Your task to perform on an android device: star an email in the gmail app Image 0: 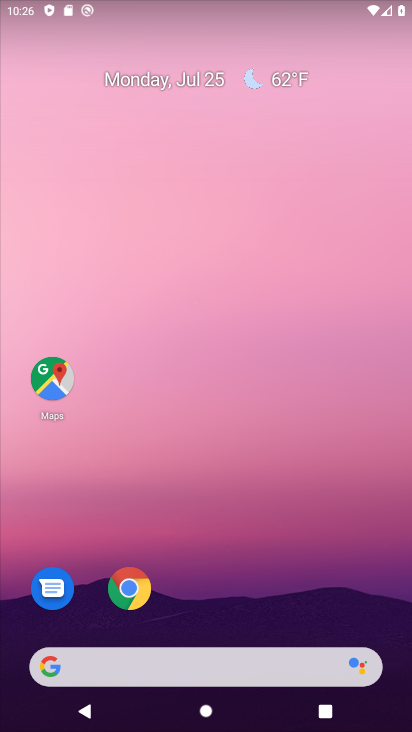
Step 0: drag from (75, 468) to (316, 5)
Your task to perform on an android device: star an email in the gmail app Image 1: 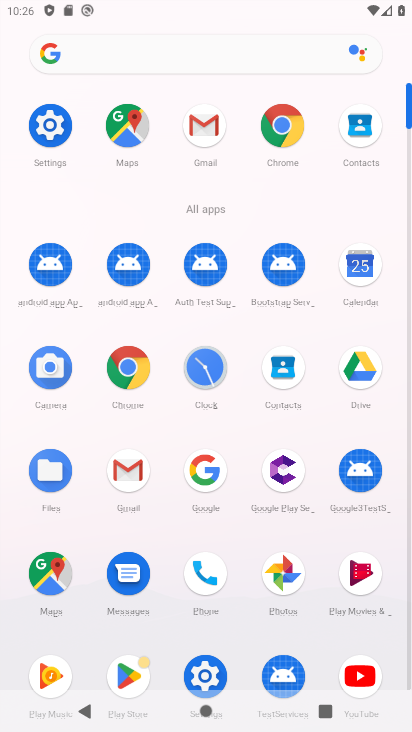
Step 1: click (211, 128)
Your task to perform on an android device: star an email in the gmail app Image 2: 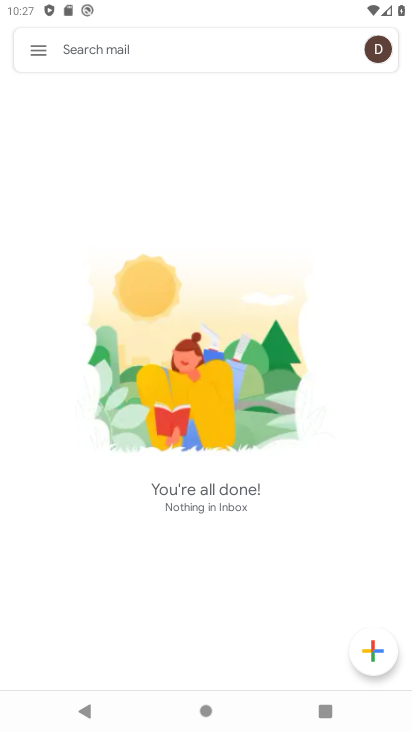
Step 2: click (36, 51)
Your task to perform on an android device: star an email in the gmail app Image 3: 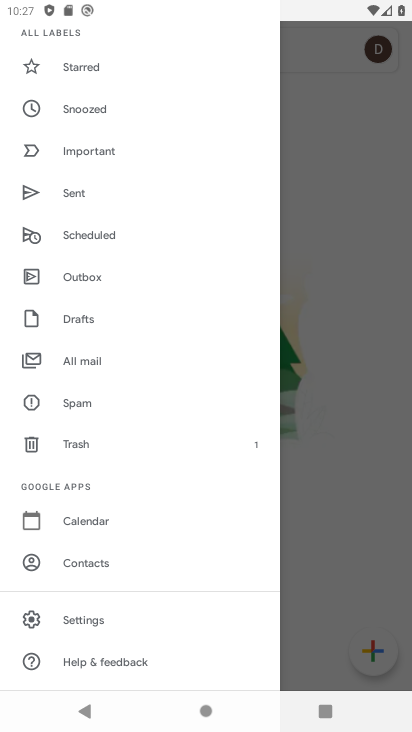
Step 3: click (68, 74)
Your task to perform on an android device: star an email in the gmail app Image 4: 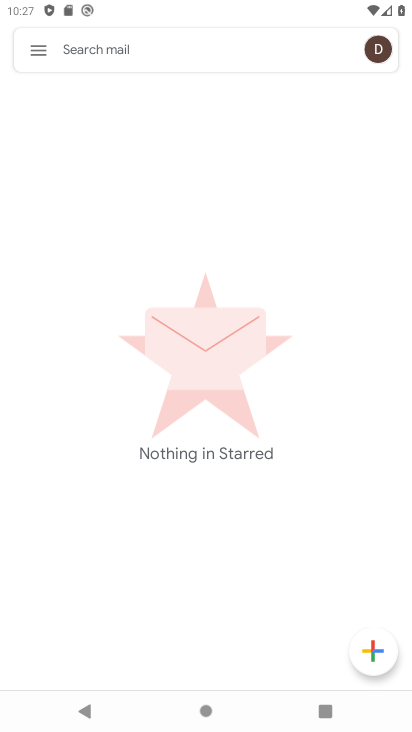
Step 4: task complete